Your task to perform on an android device: Search for "logitech g pro" on amazon.com, select the first entry, and add it to the cart. Image 0: 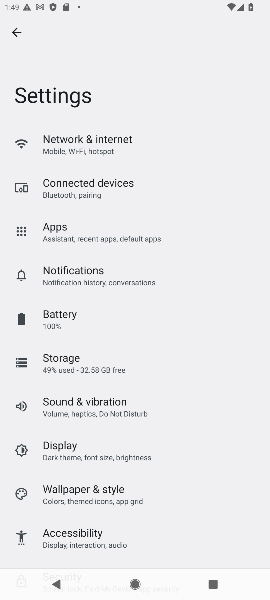
Step 0: press home button
Your task to perform on an android device: Search for "logitech g pro" on amazon.com, select the first entry, and add it to the cart. Image 1: 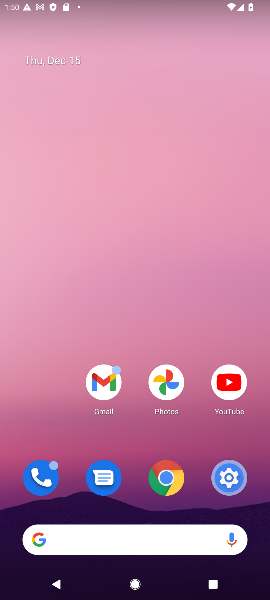
Step 1: click (170, 470)
Your task to perform on an android device: Search for "logitech g pro" on amazon.com, select the first entry, and add it to the cart. Image 2: 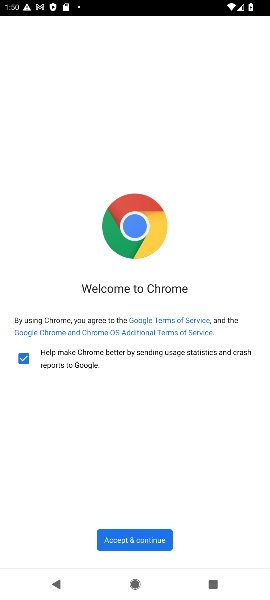
Step 2: click (118, 545)
Your task to perform on an android device: Search for "logitech g pro" on amazon.com, select the first entry, and add it to the cart. Image 3: 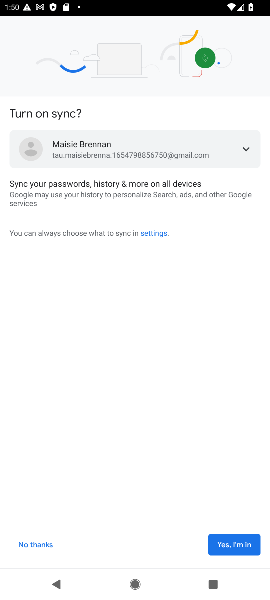
Step 3: click (31, 547)
Your task to perform on an android device: Search for "logitech g pro" on amazon.com, select the first entry, and add it to the cart. Image 4: 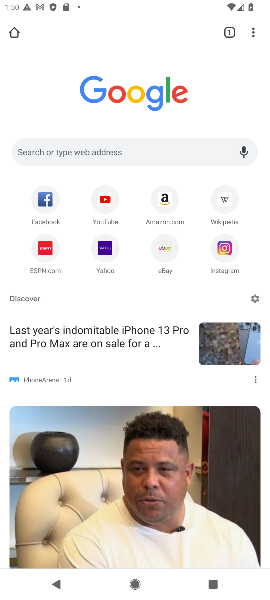
Step 4: click (160, 204)
Your task to perform on an android device: Search for "logitech g pro" on amazon.com, select the first entry, and add it to the cart. Image 5: 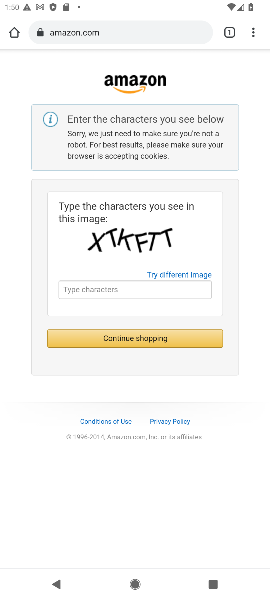
Step 5: click (104, 286)
Your task to perform on an android device: Search for "logitech g pro" on amazon.com, select the first entry, and add it to the cart. Image 6: 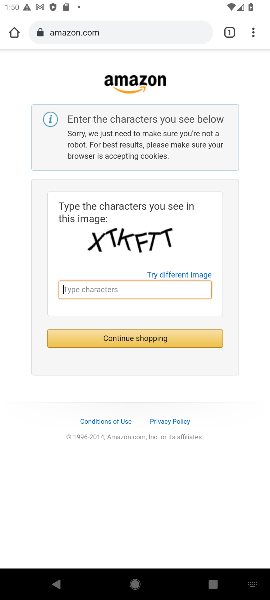
Step 6: type "XTKFTT"
Your task to perform on an android device: Search for "logitech g pro" on amazon.com, select the first entry, and add it to the cart. Image 7: 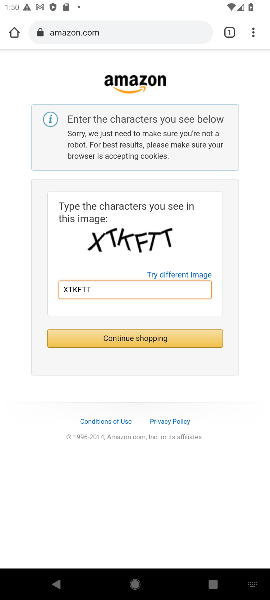
Step 7: click (164, 344)
Your task to perform on an android device: Search for "logitech g pro" on amazon.com, select the first entry, and add it to the cart. Image 8: 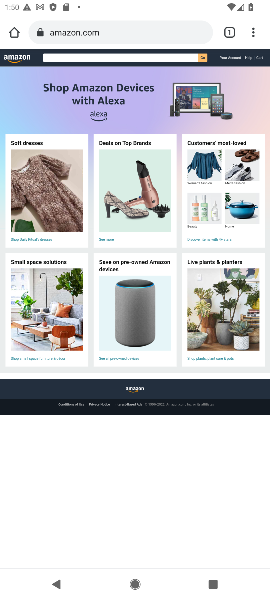
Step 8: click (116, 60)
Your task to perform on an android device: Search for "logitech g pro" on amazon.com, select the first entry, and add it to the cart. Image 9: 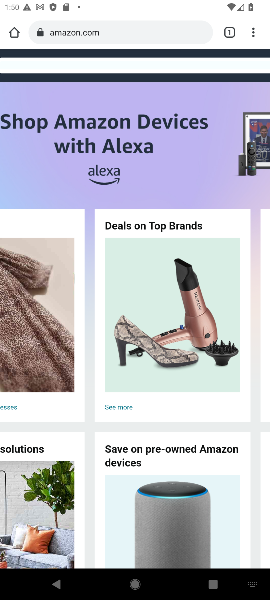
Step 9: type "logitech g pro"
Your task to perform on an android device: Search for "logitech g pro" on amazon.com, select the first entry, and add it to the cart. Image 10: 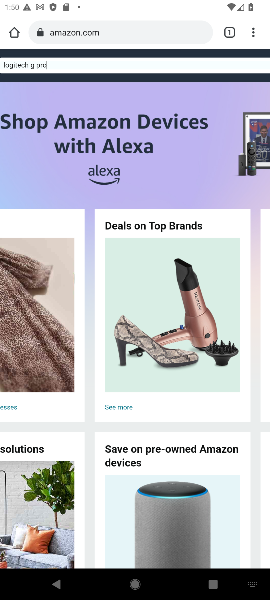
Step 10: drag from (188, 70) to (56, 71)
Your task to perform on an android device: Search for "logitech g pro" on amazon.com, select the first entry, and add it to the cart. Image 11: 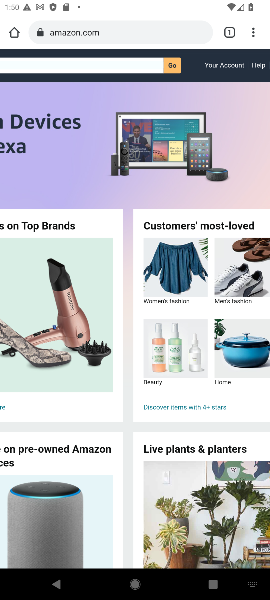
Step 11: click (174, 60)
Your task to perform on an android device: Search for "logitech g pro" on amazon.com, select the first entry, and add it to the cart. Image 12: 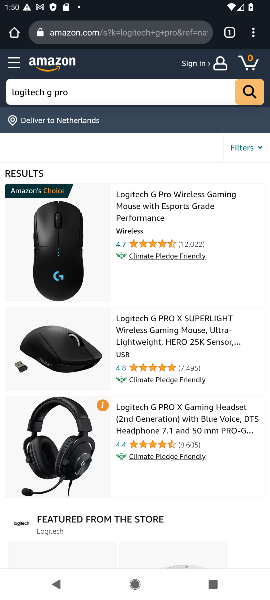
Step 12: click (140, 209)
Your task to perform on an android device: Search for "logitech g pro" on amazon.com, select the first entry, and add it to the cart. Image 13: 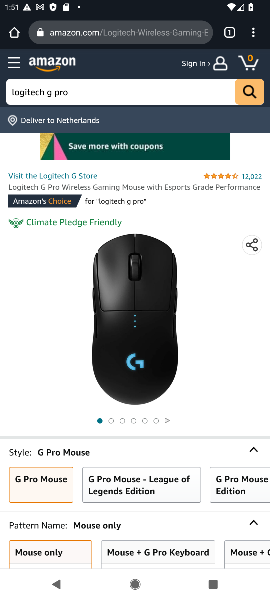
Step 13: task complete